Your task to perform on an android device: Open Chrome and go to settings Image 0: 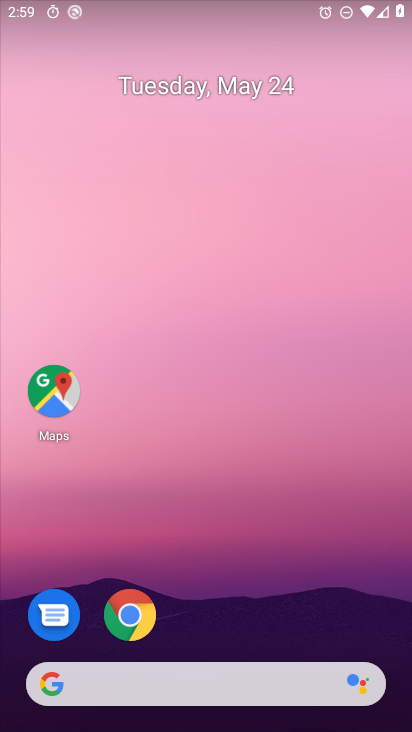
Step 0: click (136, 621)
Your task to perform on an android device: Open Chrome and go to settings Image 1: 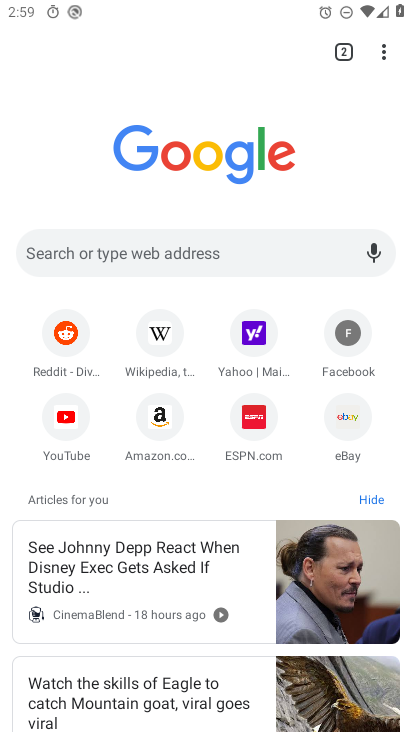
Step 1: click (383, 48)
Your task to perform on an android device: Open Chrome and go to settings Image 2: 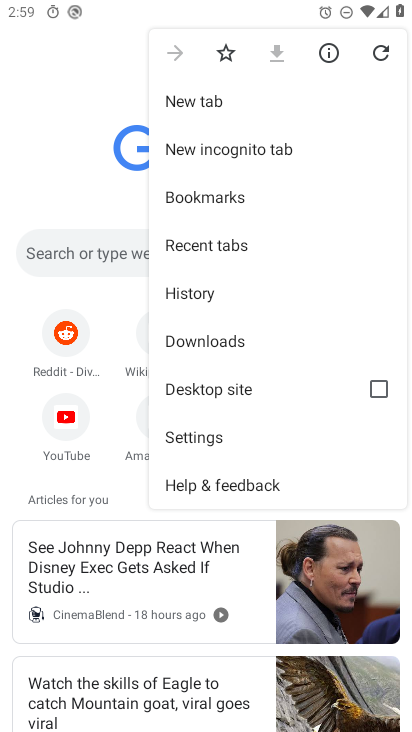
Step 2: click (203, 438)
Your task to perform on an android device: Open Chrome and go to settings Image 3: 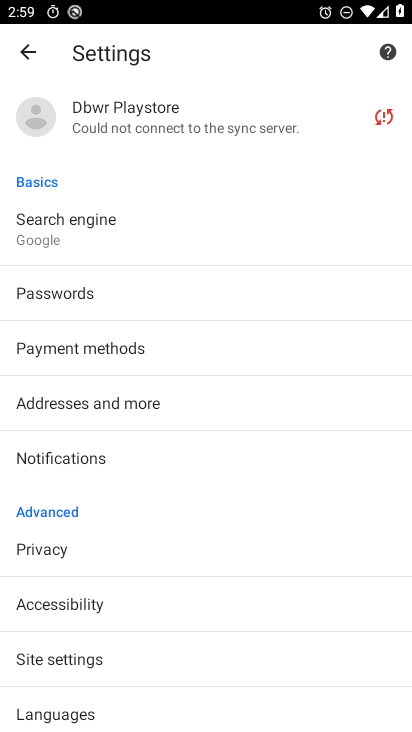
Step 3: task complete